Your task to perform on an android device: open a bookmark in the chrome app Image 0: 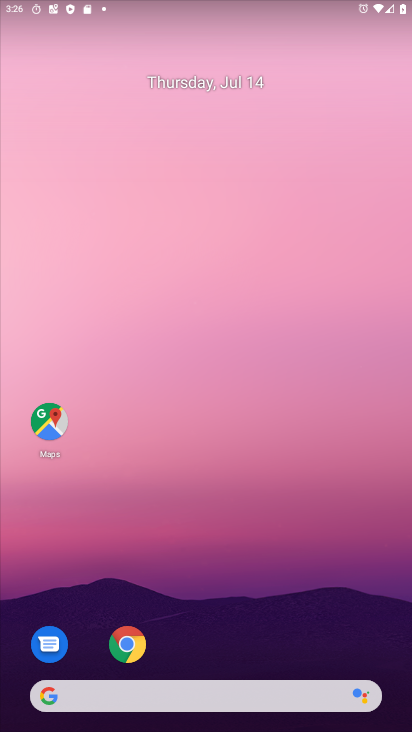
Step 0: click (131, 647)
Your task to perform on an android device: open a bookmark in the chrome app Image 1: 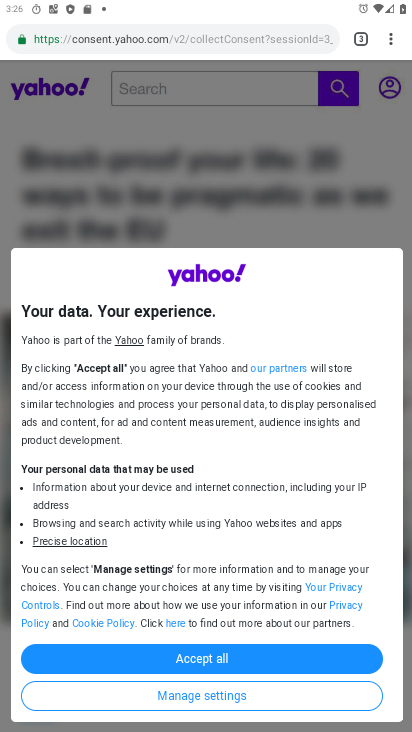
Step 1: click (383, 42)
Your task to perform on an android device: open a bookmark in the chrome app Image 2: 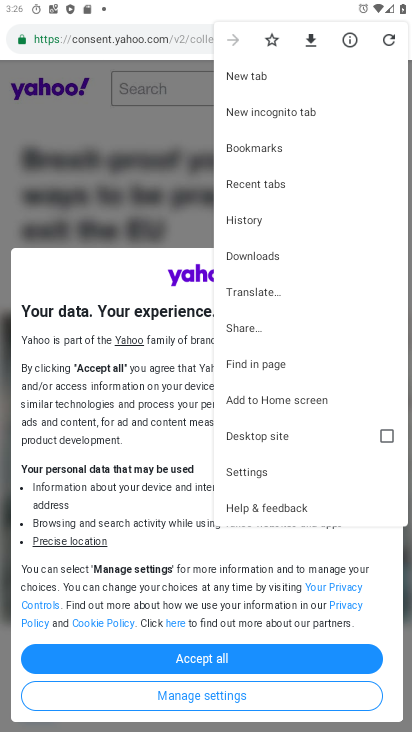
Step 2: click (282, 150)
Your task to perform on an android device: open a bookmark in the chrome app Image 3: 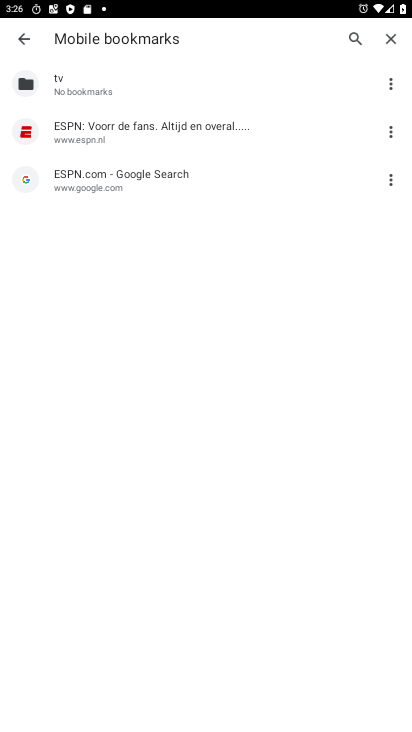
Step 3: task complete